Your task to perform on an android device: set default search engine in the chrome app Image 0: 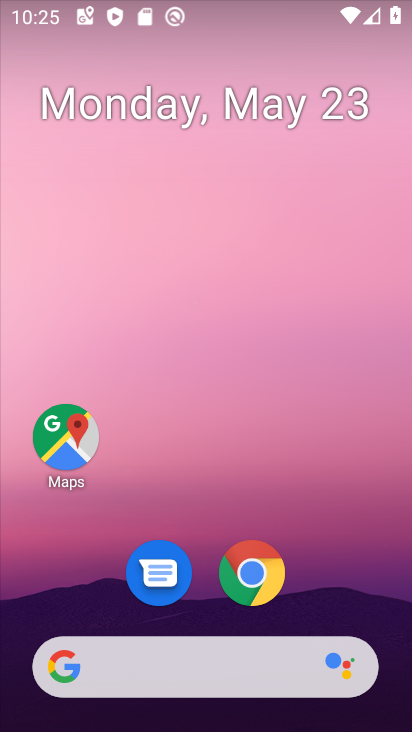
Step 0: drag from (212, 634) to (250, 145)
Your task to perform on an android device: set default search engine in the chrome app Image 1: 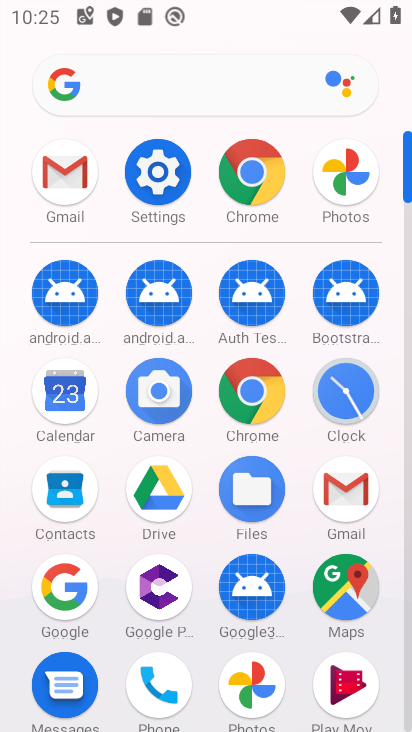
Step 1: click (253, 214)
Your task to perform on an android device: set default search engine in the chrome app Image 2: 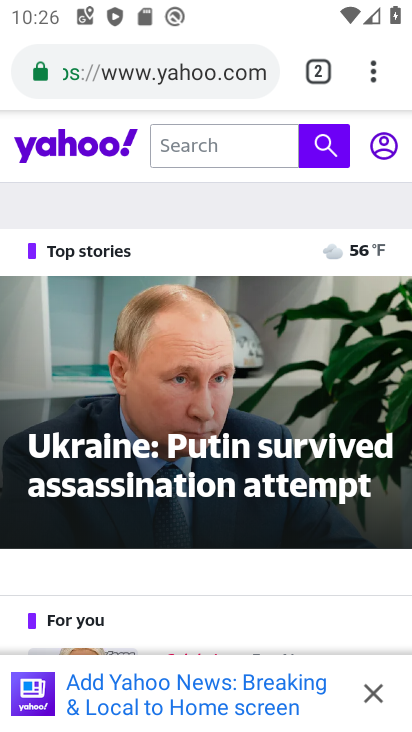
Step 2: click (376, 76)
Your task to perform on an android device: set default search engine in the chrome app Image 3: 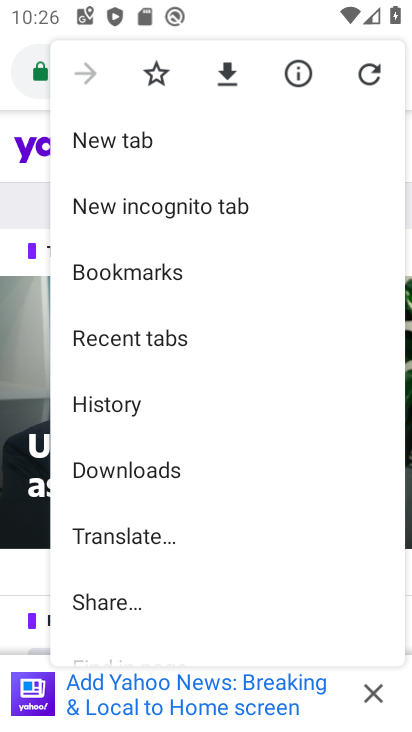
Step 3: drag from (317, 512) to (300, 225)
Your task to perform on an android device: set default search engine in the chrome app Image 4: 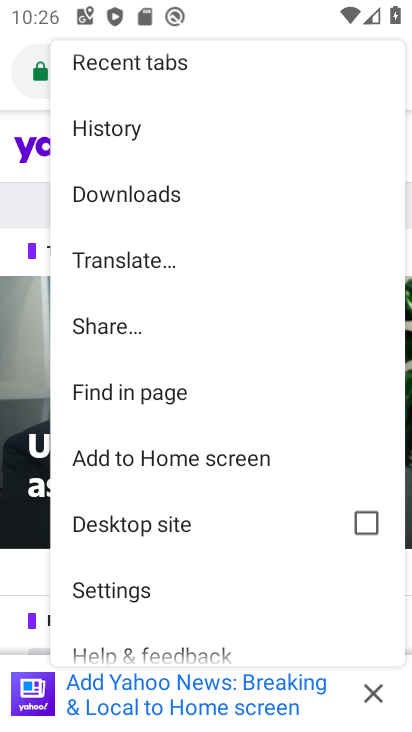
Step 4: click (131, 597)
Your task to perform on an android device: set default search engine in the chrome app Image 5: 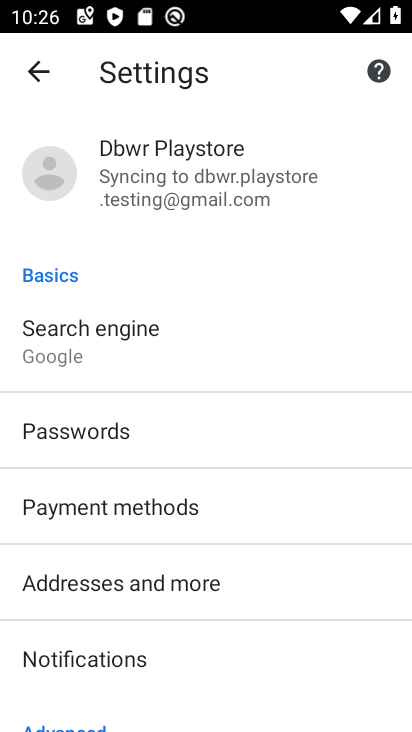
Step 5: click (167, 343)
Your task to perform on an android device: set default search engine in the chrome app Image 6: 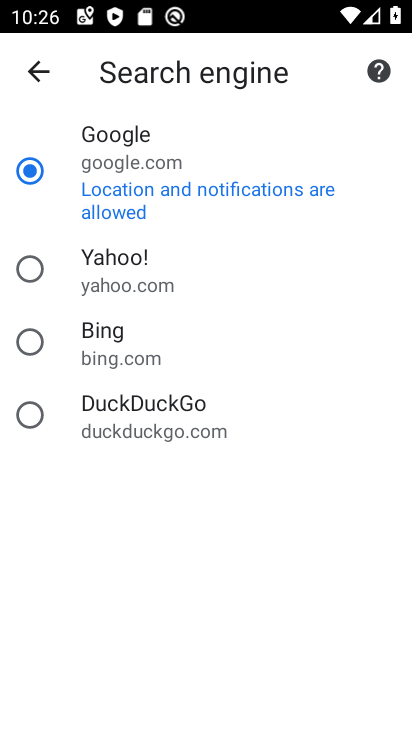
Step 6: task complete